Your task to perform on an android device: delete the emails in spam in the gmail app Image 0: 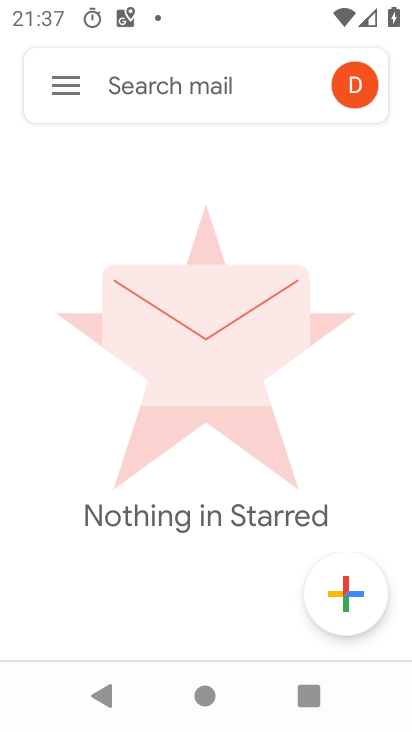
Step 0: click (65, 88)
Your task to perform on an android device: delete the emails in spam in the gmail app Image 1: 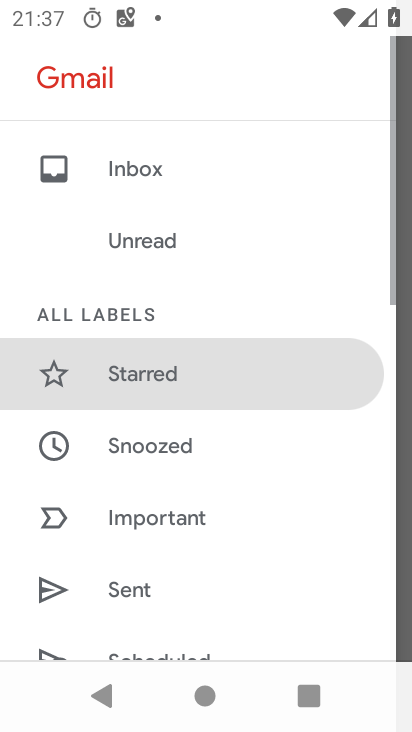
Step 1: drag from (203, 590) to (284, 159)
Your task to perform on an android device: delete the emails in spam in the gmail app Image 2: 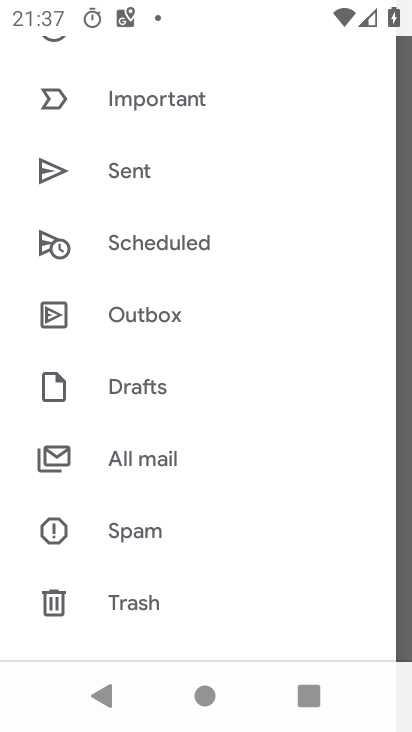
Step 2: click (142, 536)
Your task to perform on an android device: delete the emails in spam in the gmail app Image 3: 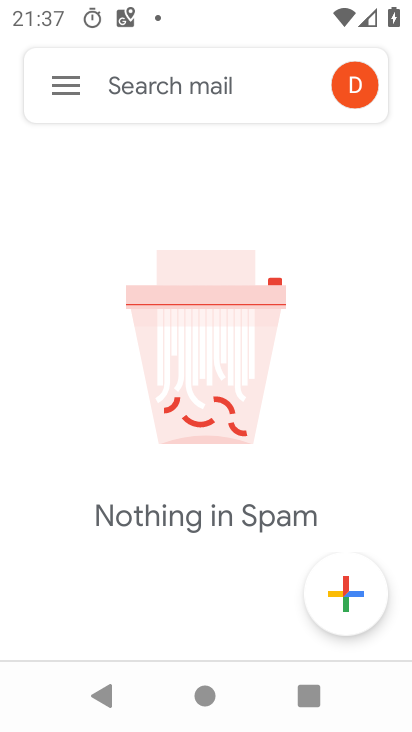
Step 3: task complete